Your task to perform on an android device: change alarm snooze length Image 0: 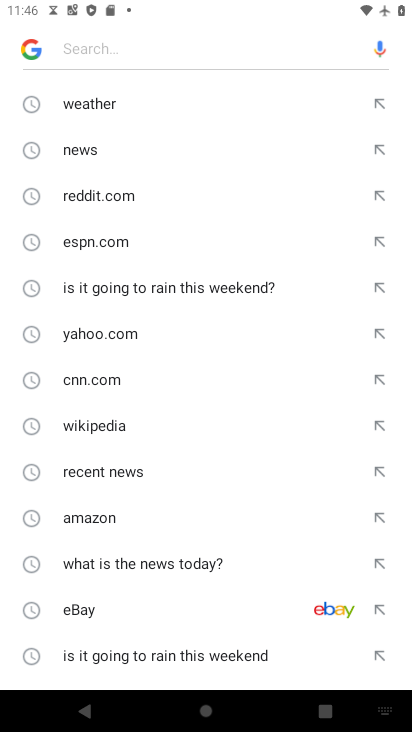
Step 0: press back button
Your task to perform on an android device: change alarm snooze length Image 1: 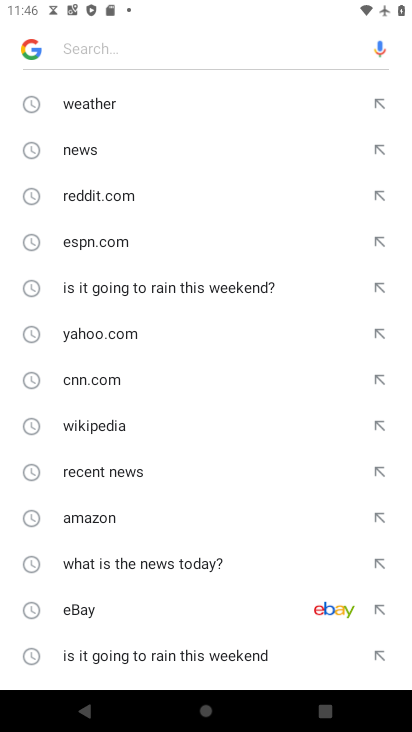
Step 1: press back button
Your task to perform on an android device: change alarm snooze length Image 2: 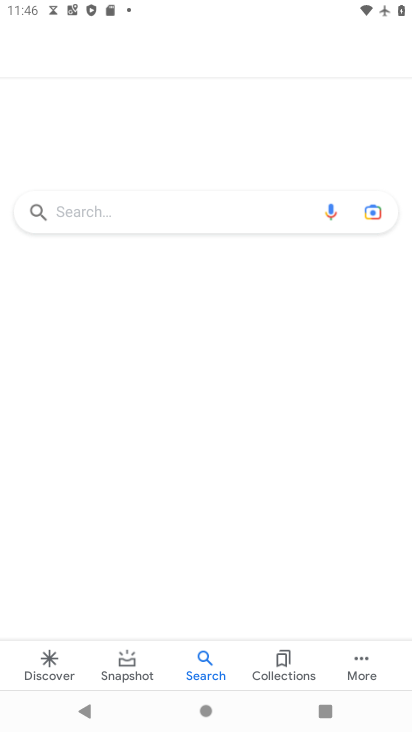
Step 2: press back button
Your task to perform on an android device: change alarm snooze length Image 3: 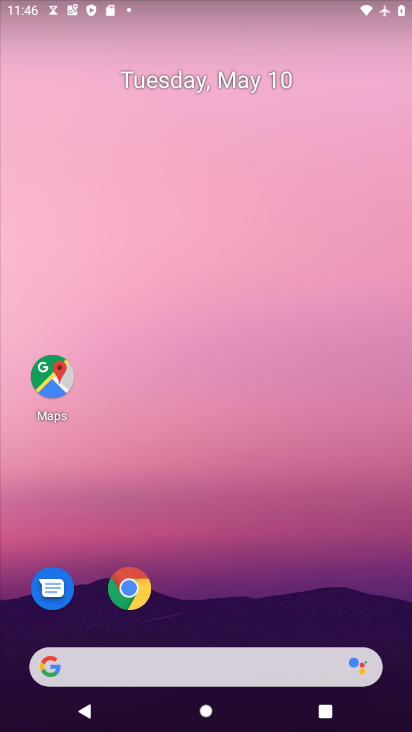
Step 3: drag from (284, 631) to (134, 147)
Your task to perform on an android device: change alarm snooze length Image 4: 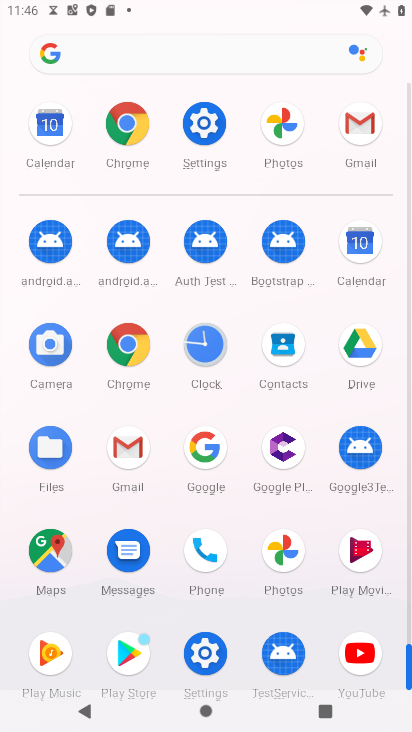
Step 4: click (208, 355)
Your task to perform on an android device: change alarm snooze length Image 5: 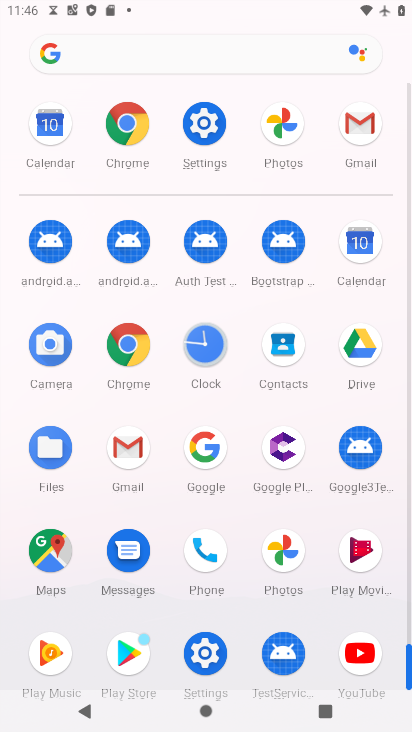
Step 5: click (213, 352)
Your task to perform on an android device: change alarm snooze length Image 6: 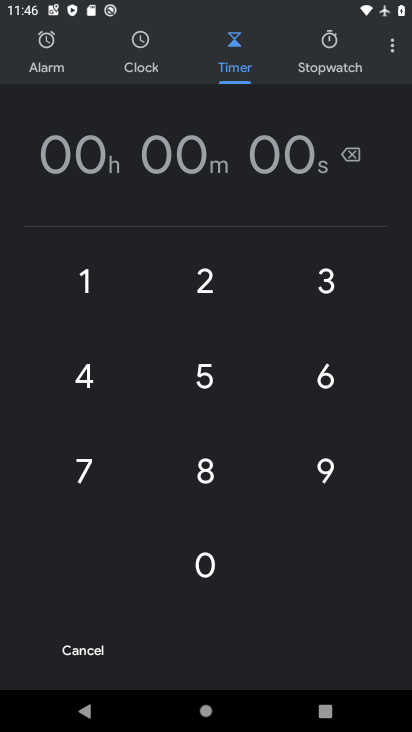
Step 6: click (386, 39)
Your task to perform on an android device: change alarm snooze length Image 7: 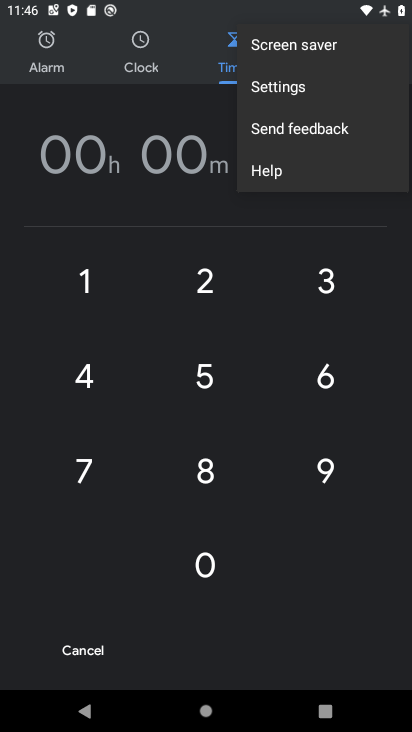
Step 7: click (295, 90)
Your task to perform on an android device: change alarm snooze length Image 8: 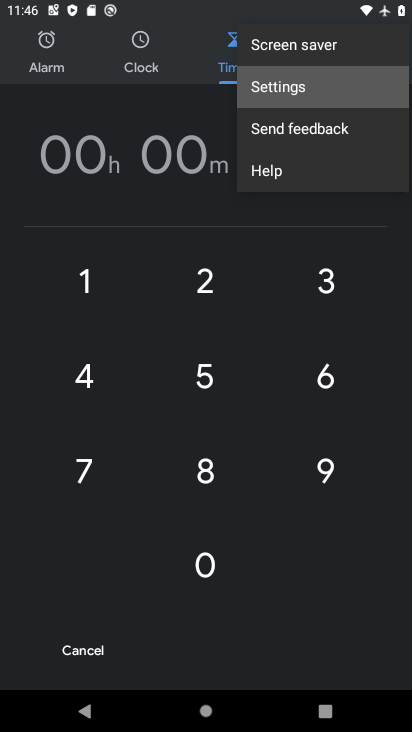
Step 8: click (302, 128)
Your task to perform on an android device: change alarm snooze length Image 9: 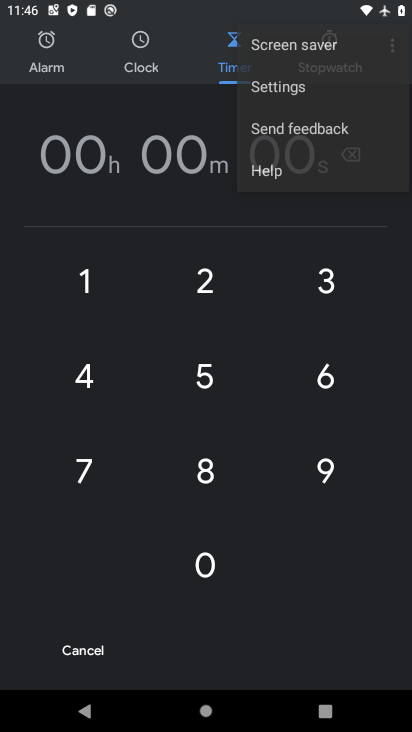
Step 9: click (302, 128)
Your task to perform on an android device: change alarm snooze length Image 10: 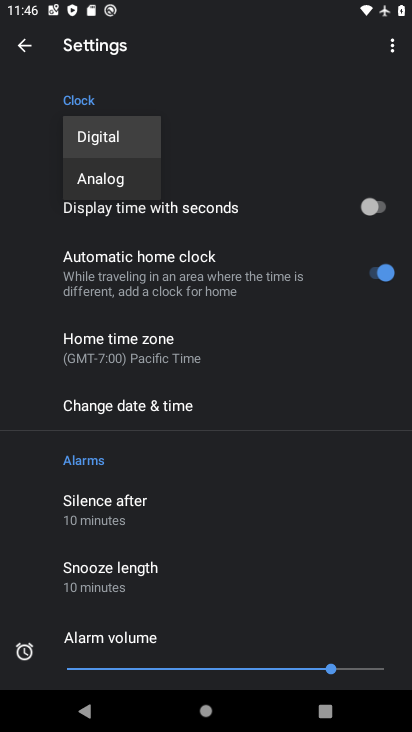
Step 10: click (111, 564)
Your task to perform on an android device: change alarm snooze length Image 11: 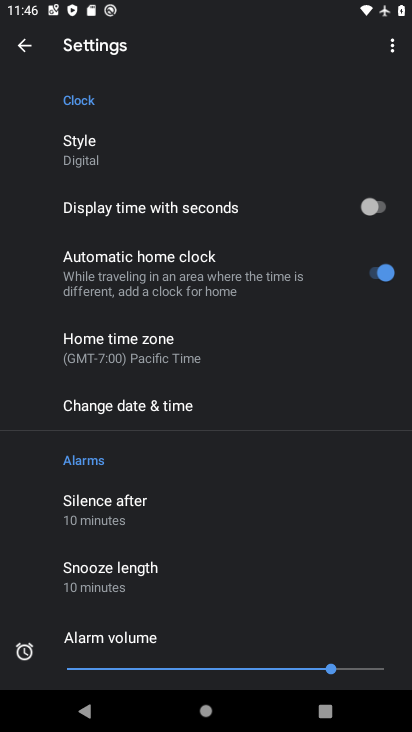
Step 11: click (110, 572)
Your task to perform on an android device: change alarm snooze length Image 12: 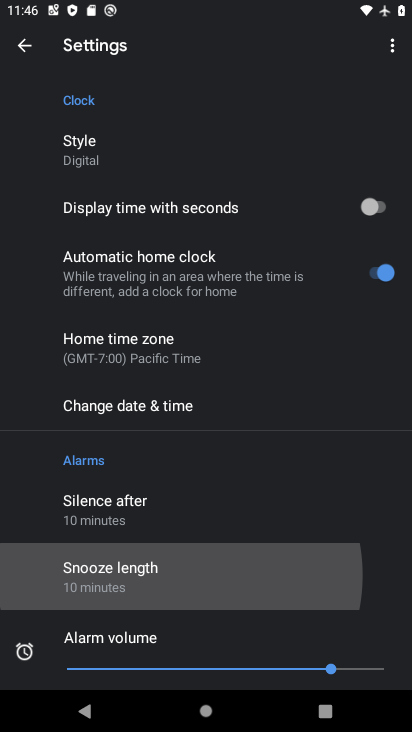
Step 12: click (113, 575)
Your task to perform on an android device: change alarm snooze length Image 13: 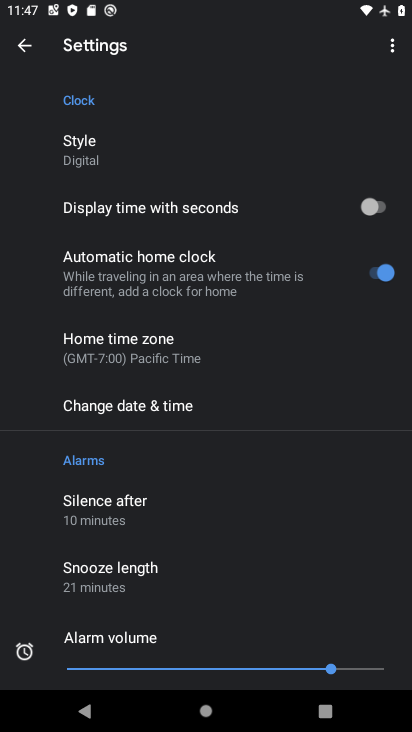
Step 13: task complete